Your task to perform on an android device: snooze an email in the gmail app Image 0: 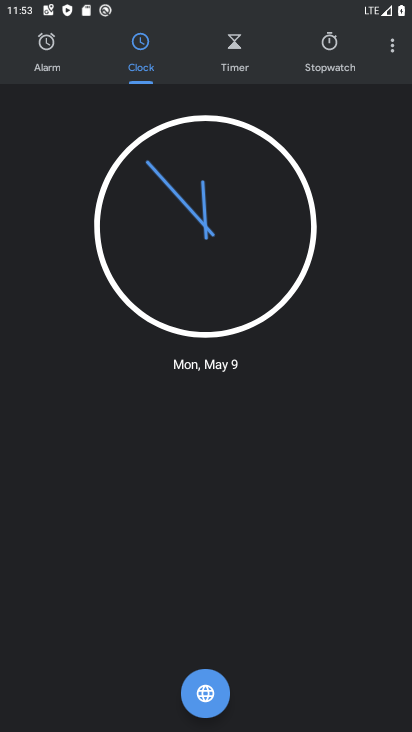
Step 0: press home button
Your task to perform on an android device: snooze an email in the gmail app Image 1: 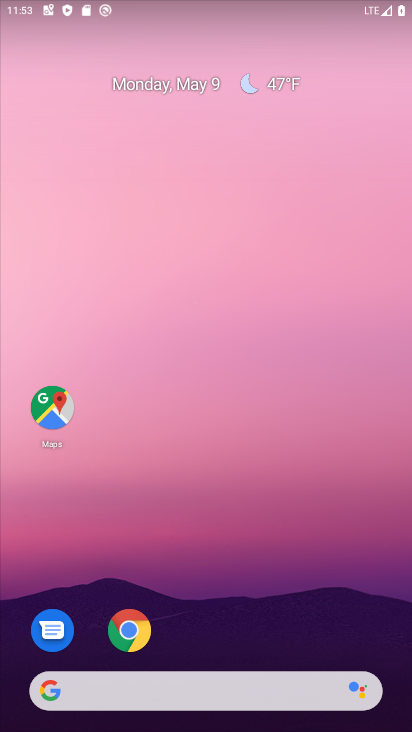
Step 1: drag from (204, 518) to (303, 109)
Your task to perform on an android device: snooze an email in the gmail app Image 2: 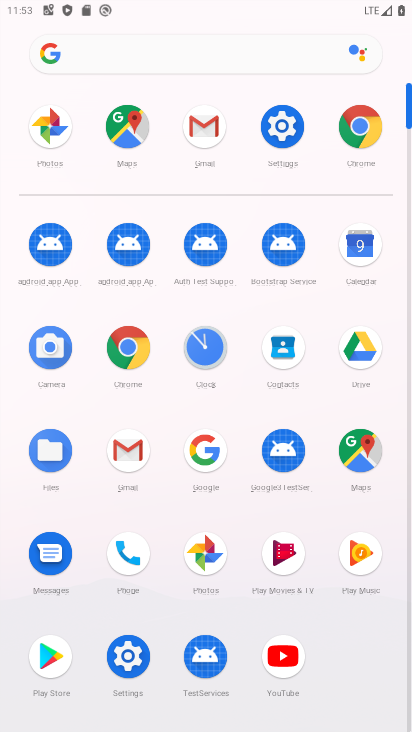
Step 2: click (203, 133)
Your task to perform on an android device: snooze an email in the gmail app Image 3: 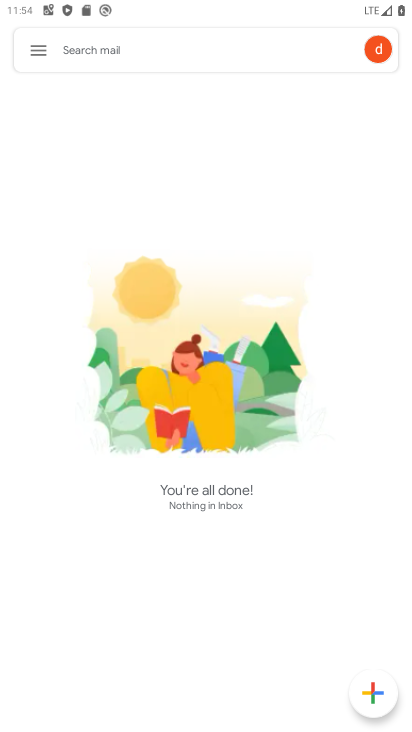
Step 3: task complete